Your task to perform on an android device: Go to Amazon Image 0: 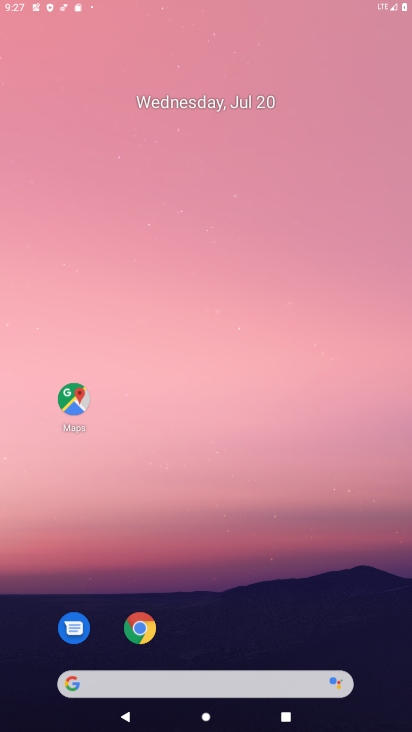
Step 0: drag from (268, 655) to (61, 64)
Your task to perform on an android device: Go to Amazon Image 1: 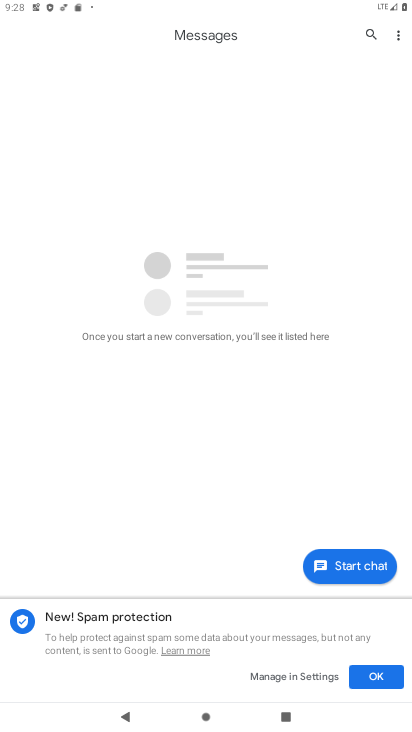
Step 1: press home button
Your task to perform on an android device: Go to Amazon Image 2: 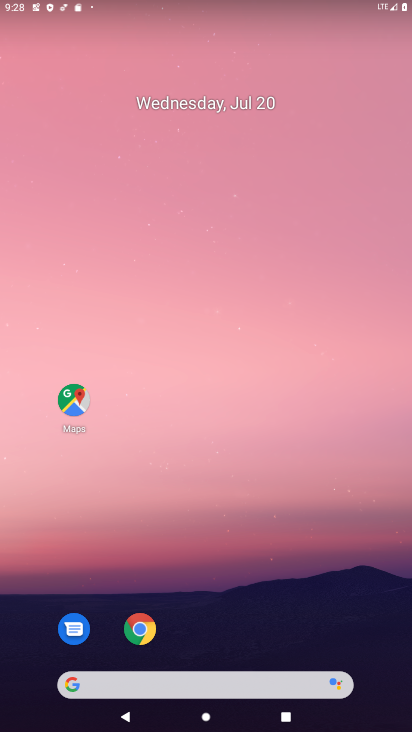
Step 2: drag from (239, 666) to (191, 4)
Your task to perform on an android device: Go to Amazon Image 3: 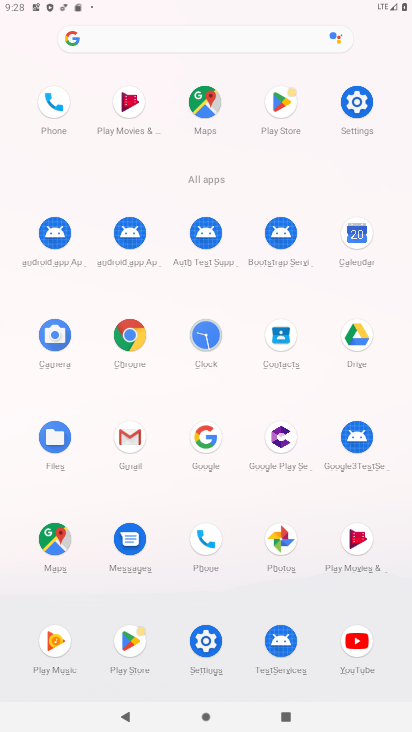
Step 3: click (128, 333)
Your task to perform on an android device: Go to Amazon Image 4: 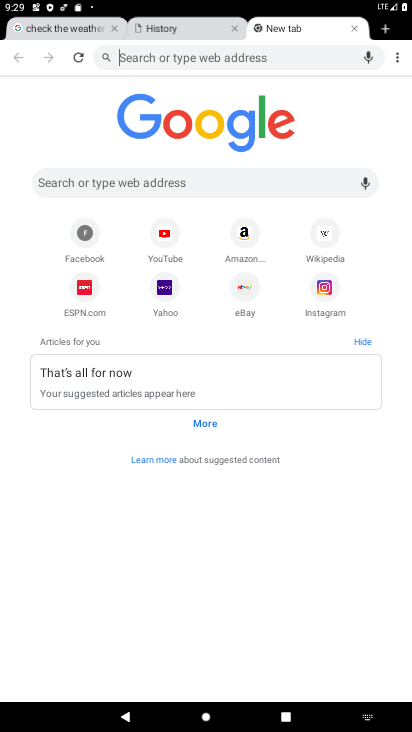
Step 4: click (260, 239)
Your task to perform on an android device: Go to Amazon Image 5: 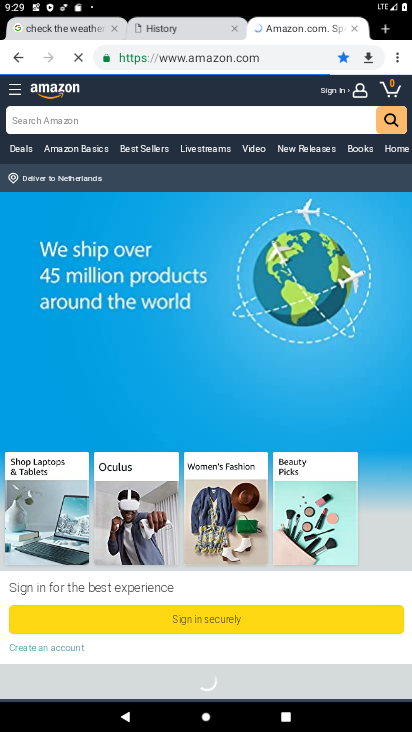
Step 5: task complete